Your task to perform on an android device: Search for seafood restaurants on Google Maps Image 0: 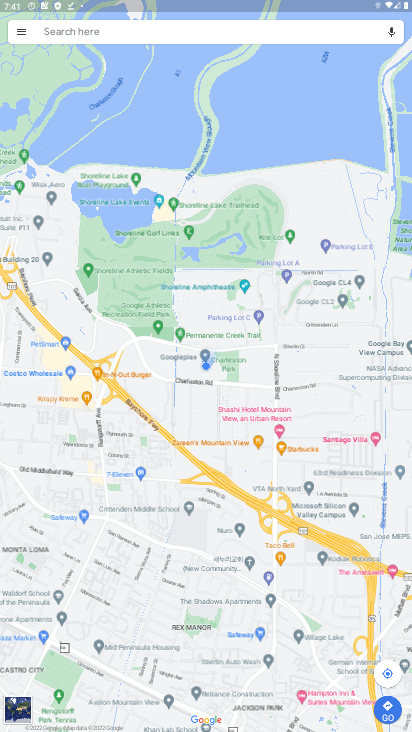
Step 0: press home button
Your task to perform on an android device: Search for seafood restaurants on Google Maps Image 1: 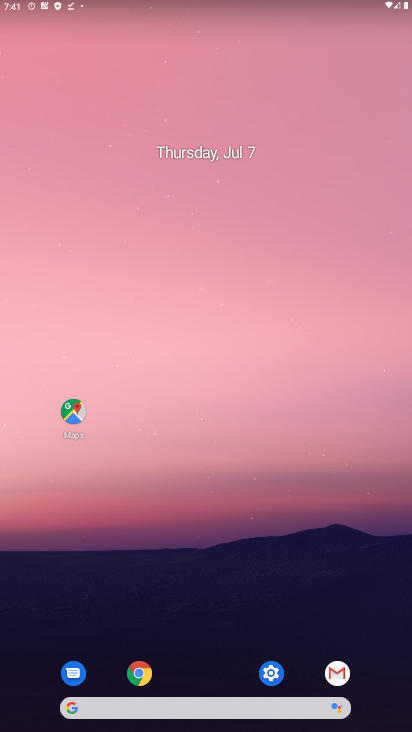
Step 1: drag from (235, 710) to (194, 324)
Your task to perform on an android device: Search for seafood restaurants on Google Maps Image 2: 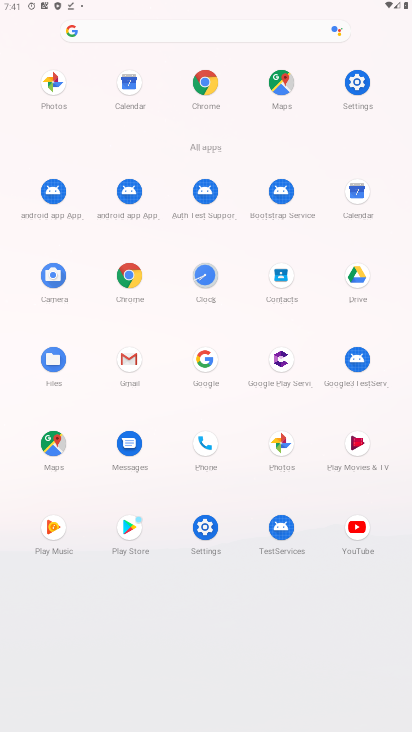
Step 2: click (280, 87)
Your task to perform on an android device: Search for seafood restaurants on Google Maps Image 3: 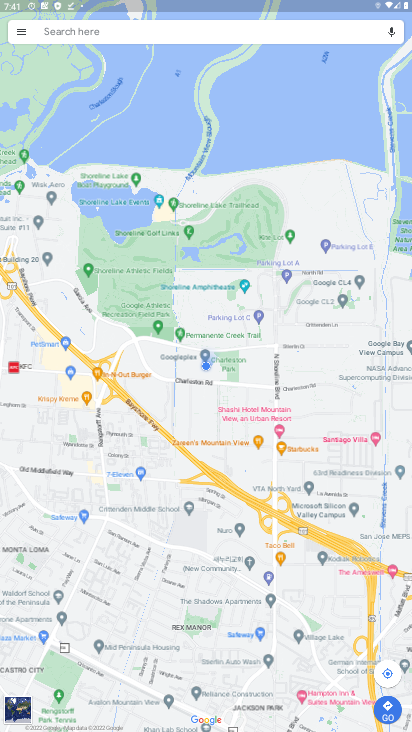
Step 3: click (117, 26)
Your task to perform on an android device: Search for seafood restaurants on Google Maps Image 4: 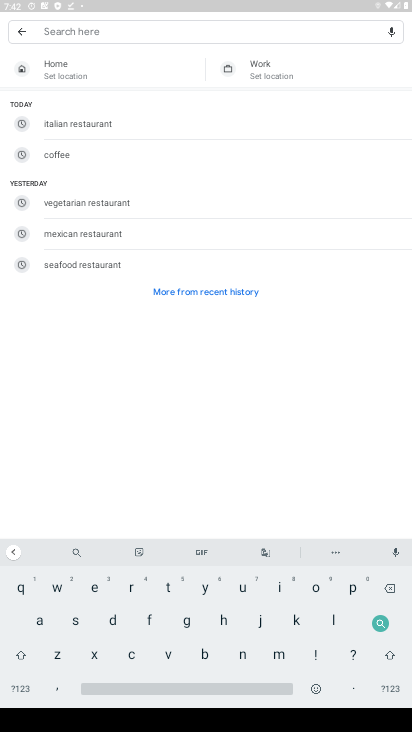
Step 4: click (83, 268)
Your task to perform on an android device: Search for seafood restaurants on Google Maps Image 5: 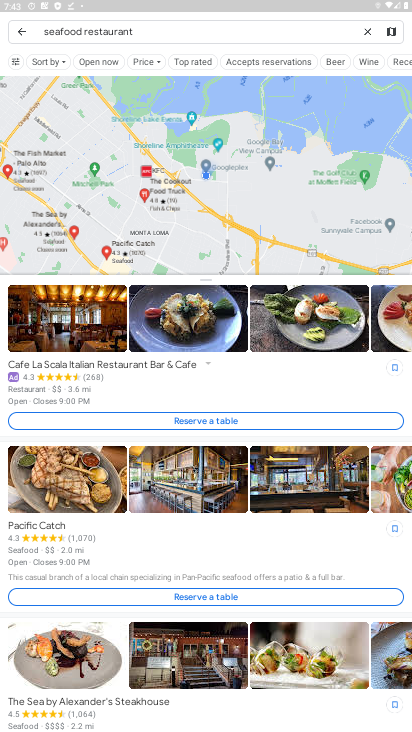
Step 5: task complete